Your task to perform on an android device: Add "panasonic triple a" to the cart on bestbuy.com, then select checkout. Image 0: 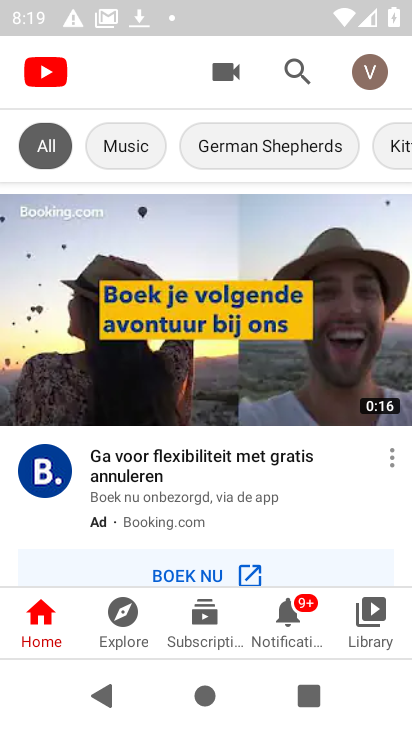
Step 0: press home button
Your task to perform on an android device: Add "panasonic triple a" to the cart on bestbuy.com, then select checkout. Image 1: 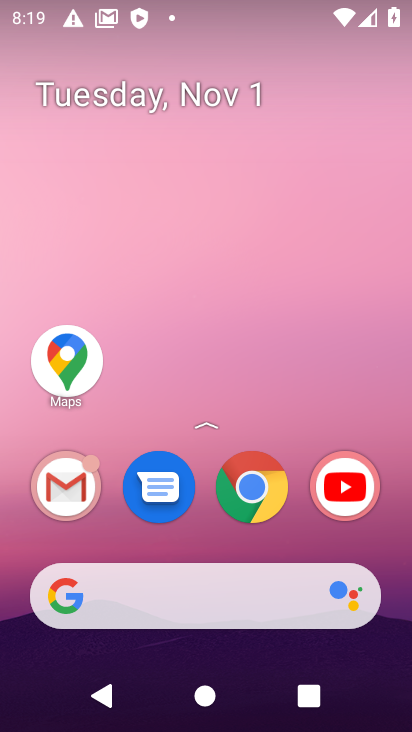
Step 1: click (250, 480)
Your task to perform on an android device: Add "panasonic triple a" to the cart on bestbuy.com, then select checkout. Image 2: 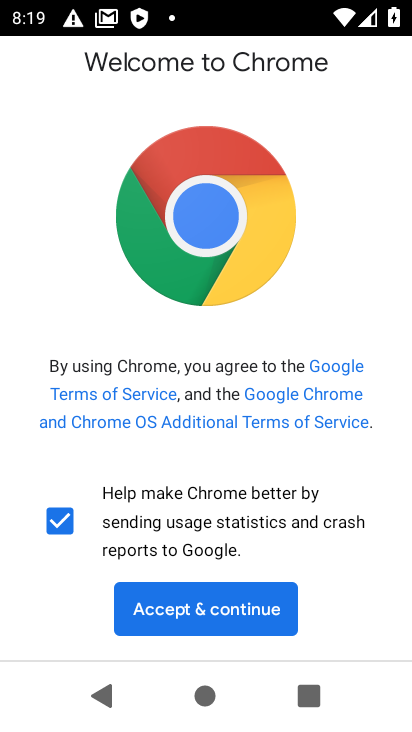
Step 2: click (267, 597)
Your task to perform on an android device: Add "panasonic triple a" to the cart on bestbuy.com, then select checkout. Image 3: 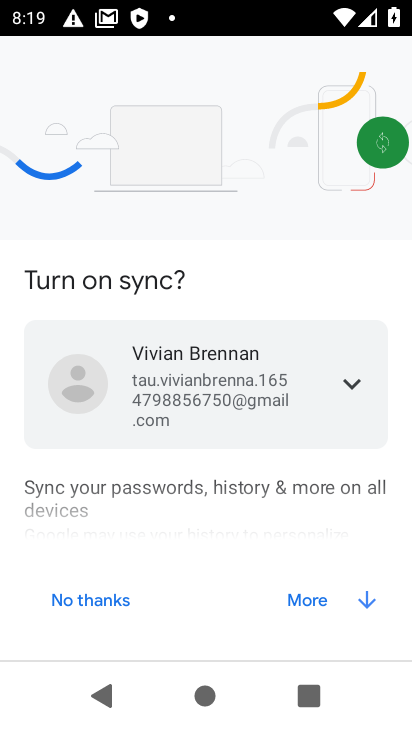
Step 3: click (369, 597)
Your task to perform on an android device: Add "panasonic triple a" to the cart on bestbuy.com, then select checkout. Image 4: 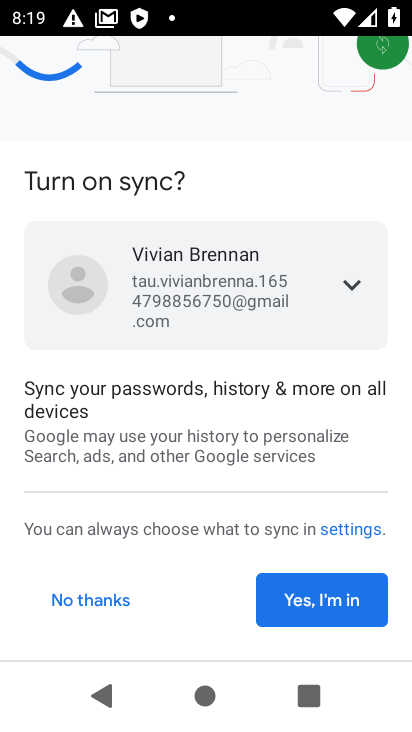
Step 4: click (347, 599)
Your task to perform on an android device: Add "panasonic triple a" to the cart on bestbuy.com, then select checkout. Image 5: 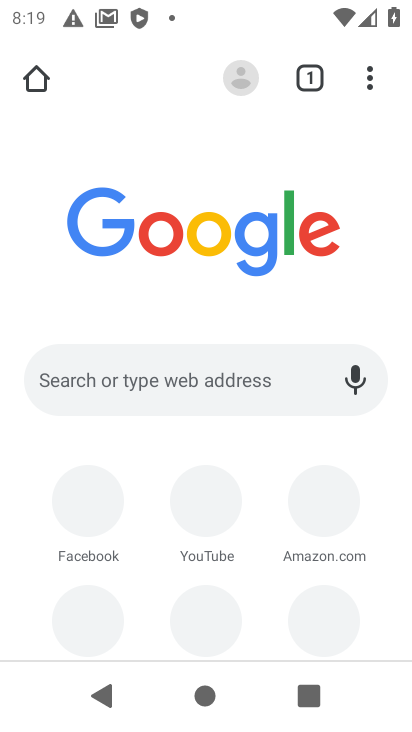
Step 5: click (150, 76)
Your task to perform on an android device: Add "panasonic triple a" to the cart on bestbuy.com, then select checkout. Image 6: 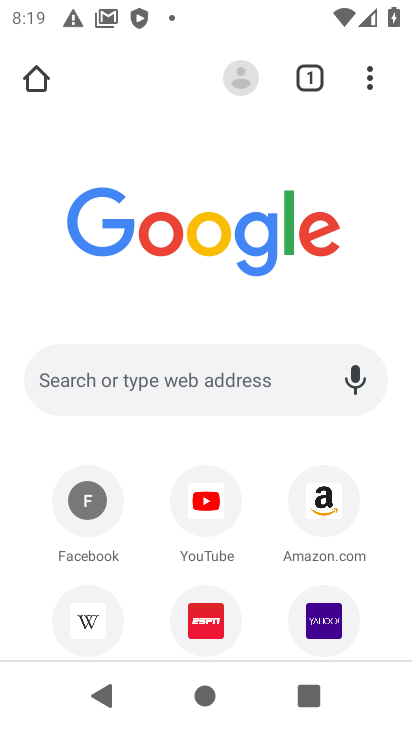
Step 6: click (242, 375)
Your task to perform on an android device: Add "panasonic triple a" to the cart on bestbuy.com, then select checkout. Image 7: 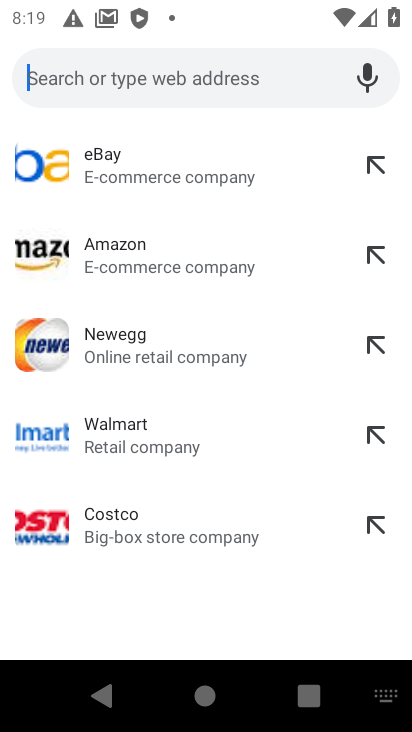
Step 7: press enter
Your task to perform on an android device: Add "panasonic triple a" to the cart on bestbuy.com, then select checkout. Image 8: 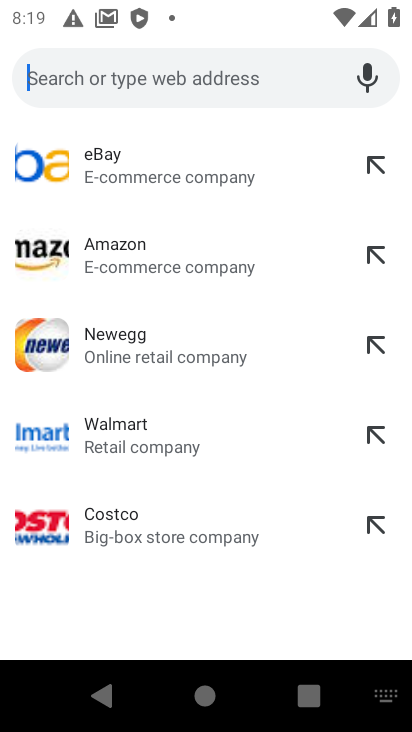
Step 8: type "bestbuy.com"
Your task to perform on an android device: Add "panasonic triple a" to the cart on bestbuy.com, then select checkout. Image 9: 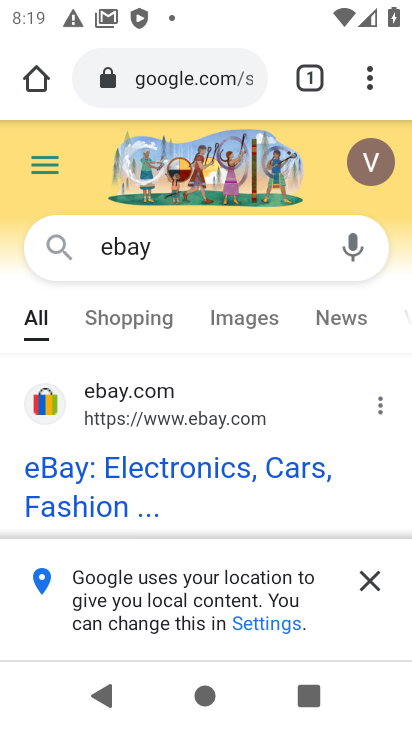
Step 9: click (159, 416)
Your task to perform on an android device: Add "panasonic triple a" to the cart on bestbuy.com, then select checkout. Image 10: 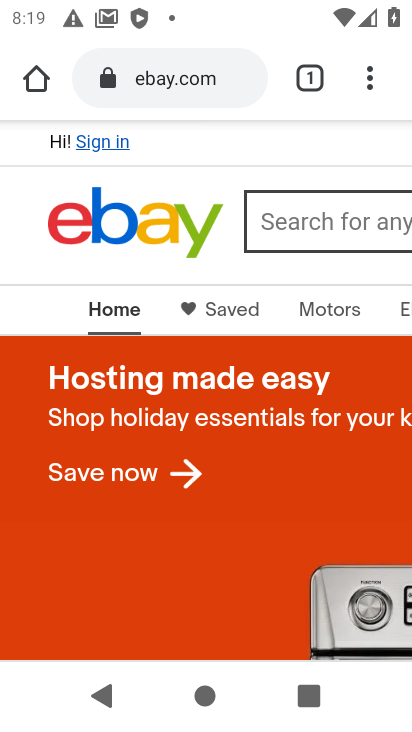
Step 10: click (310, 223)
Your task to perform on an android device: Add "panasonic triple a" to the cart on bestbuy.com, then select checkout. Image 11: 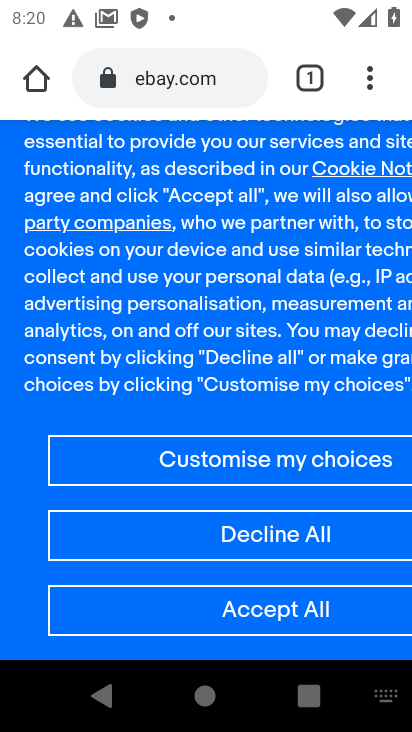
Step 11: click (293, 610)
Your task to perform on an android device: Add "panasonic triple a" to the cart on bestbuy.com, then select checkout. Image 12: 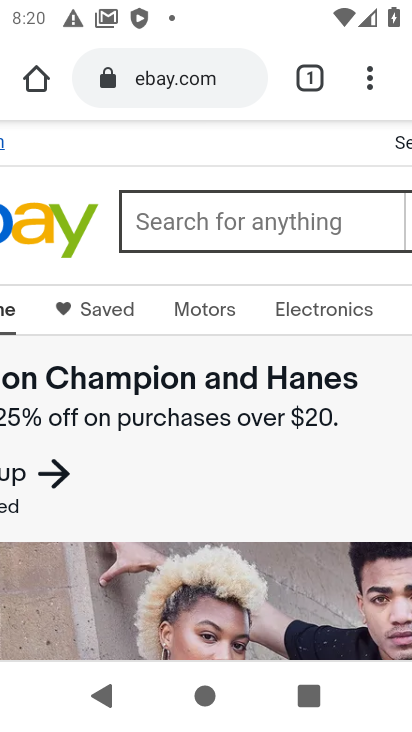
Step 12: click (201, 206)
Your task to perform on an android device: Add "panasonic triple a" to the cart on bestbuy.com, then select checkout. Image 13: 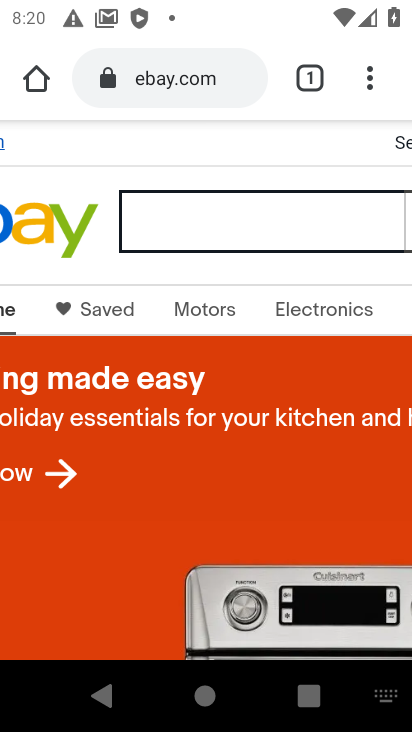
Step 13: type "panasonic triple a"
Your task to perform on an android device: Add "panasonic triple a" to the cart on bestbuy.com, then select checkout. Image 14: 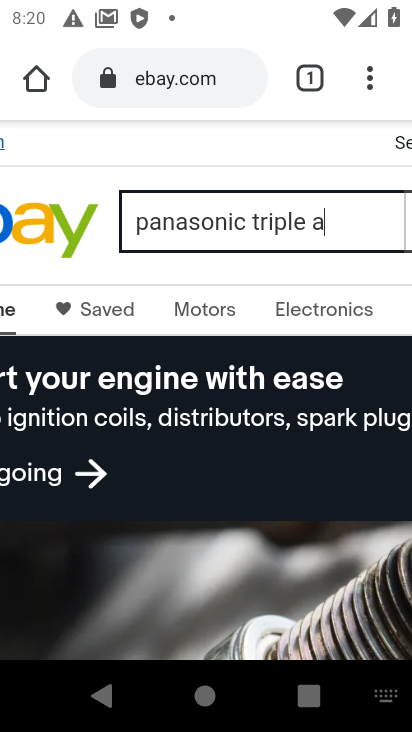
Step 14: press enter
Your task to perform on an android device: Add "panasonic triple a" to the cart on bestbuy.com, then select checkout. Image 15: 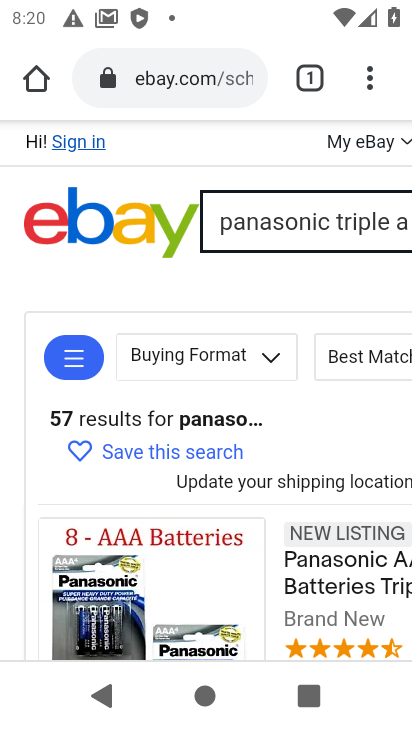
Step 15: drag from (312, 591) to (154, 252)
Your task to perform on an android device: Add "panasonic triple a" to the cart on bestbuy.com, then select checkout. Image 16: 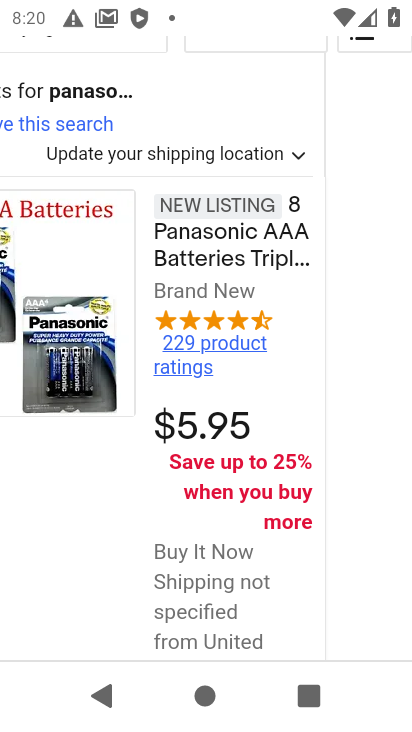
Step 16: click (79, 267)
Your task to perform on an android device: Add "panasonic triple a" to the cart on bestbuy.com, then select checkout. Image 17: 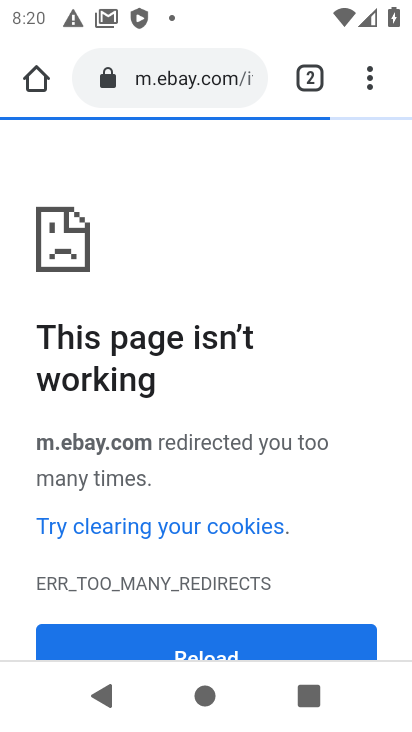
Step 17: press back button
Your task to perform on an android device: Add "panasonic triple a" to the cart on bestbuy.com, then select checkout. Image 18: 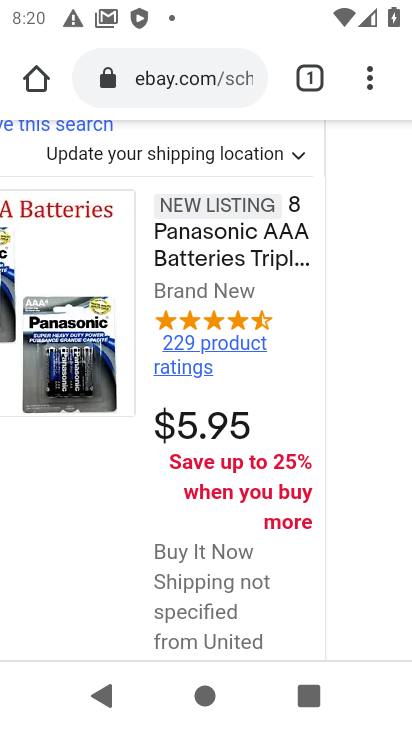
Step 18: drag from (81, 360) to (211, 181)
Your task to perform on an android device: Add "panasonic triple a" to the cart on bestbuy.com, then select checkout. Image 19: 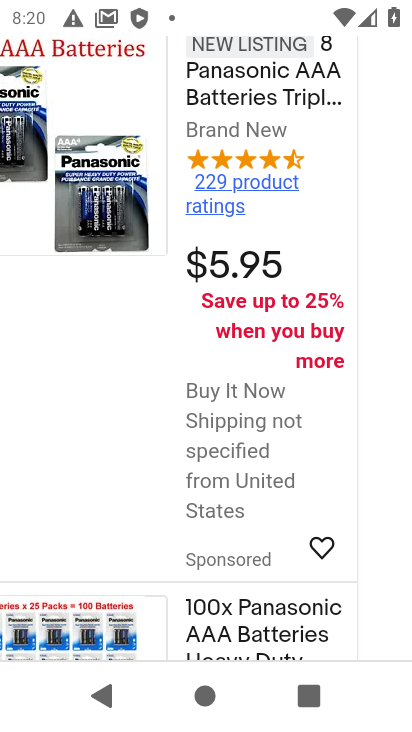
Step 19: click (77, 159)
Your task to perform on an android device: Add "panasonic triple a" to the cart on bestbuy.com, then select checkout. Image 20: 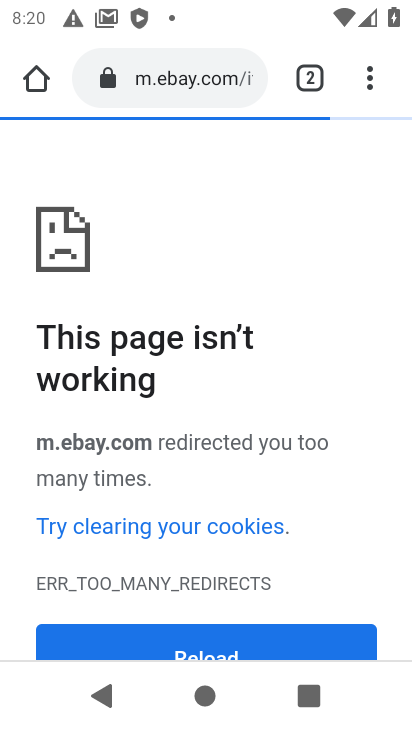
Step 20: press back button
Your task to perform on an android device: Add "panasonic triple a" to the cart on bestbuy.com, then select checkout. Image 21: 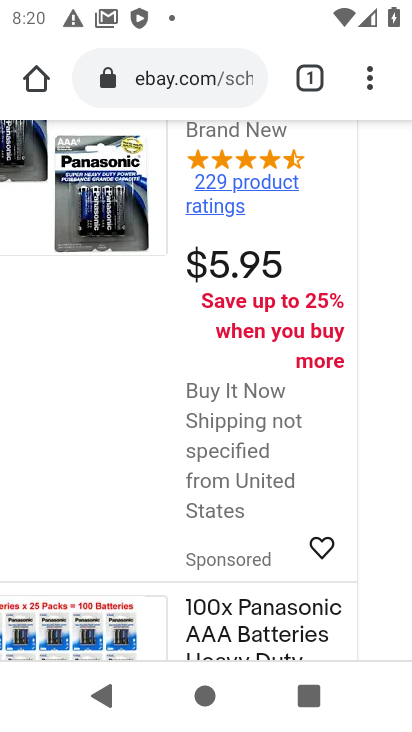
Step 21: drag from (214, 512) to (301, 248)
Your task to perform on an android device: Add "panasonic triple a" to the cart on bestbuy.com, then select checkout. Image 22: 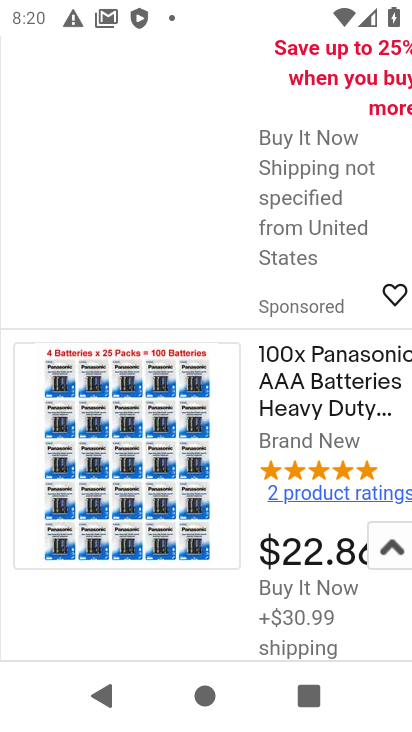
Step 22: drag from (317, 512) to (242, 215)
Your task to perform on an android device: Add "panasonic triple a" to the cart on bestbuy.com, then select checkout. Image 23: 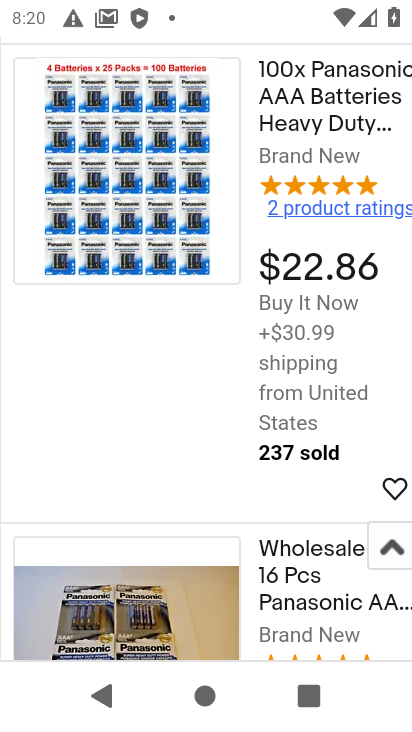
Step 23: drag from (301, 435) to (255, 189)
Your task to perform on an android device: Add "panasonic triple a" to the cart on bestbuy.com, then select checkout. Image 24: 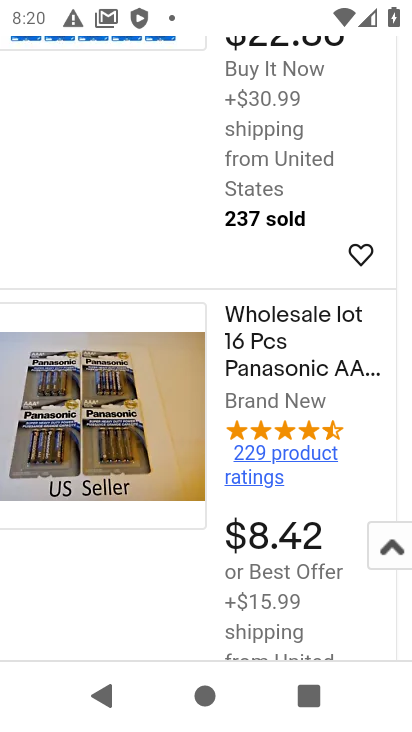
Step 24: click (164, 409)
Your task to perform on an android device: Add "panasonic triple a" to the cart on bestbuy.com, then select checkout. Image 25: 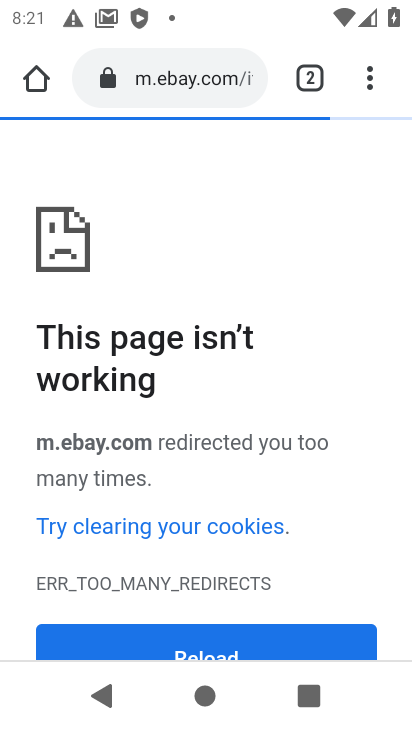
Step 25: task complete